Your task to perform on an android device: turn off smart reply in the gmail app Image 0: 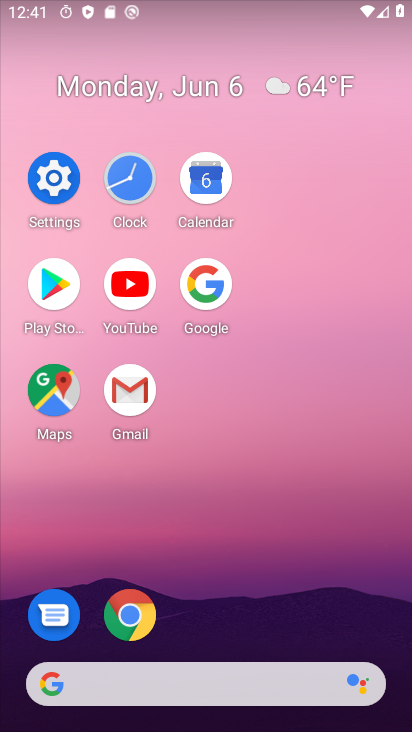
Step 0: click (158, 379)
Your task to perform on an android device: turn off smart reply in the gmail app Image 1: 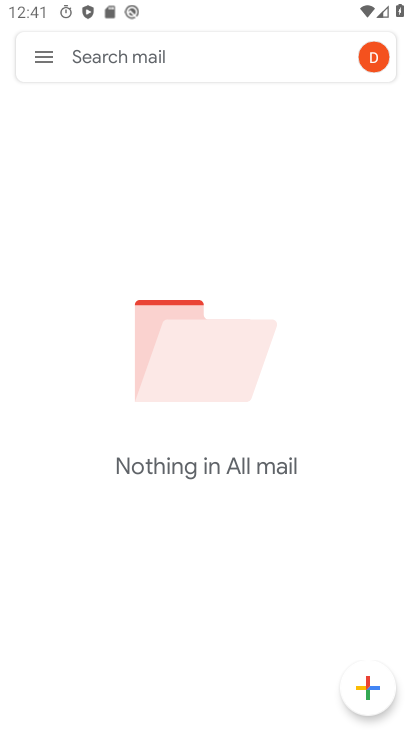
Step 1: click (38, 64)
Your task to perform on an android device: turn off smart reply in the gmail app Image 2: 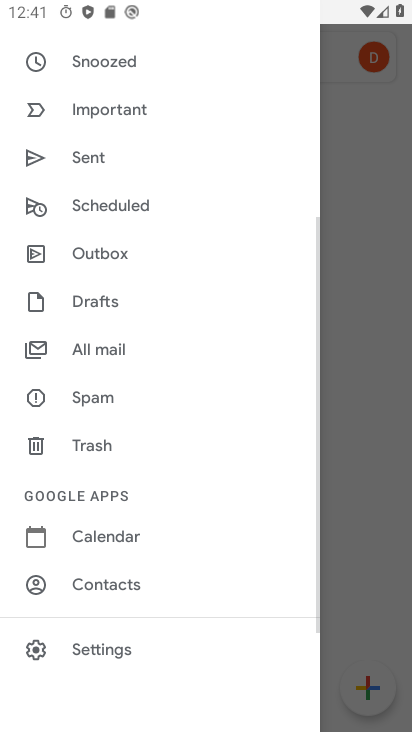
Step 2: click (132, 637)
Your task to perform on an android device: turn off smart reply in the gmail app Image 3: 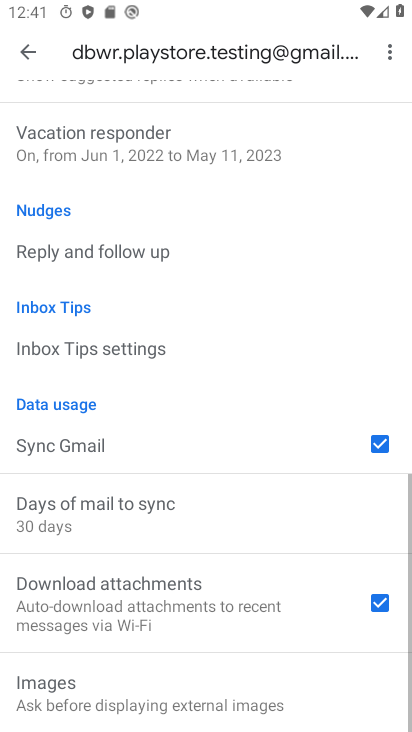
Step 3: drag from (140, 618) to (114, 240)
Your task to perform on an android device: turn off smart reply in the gmail app Image 4: 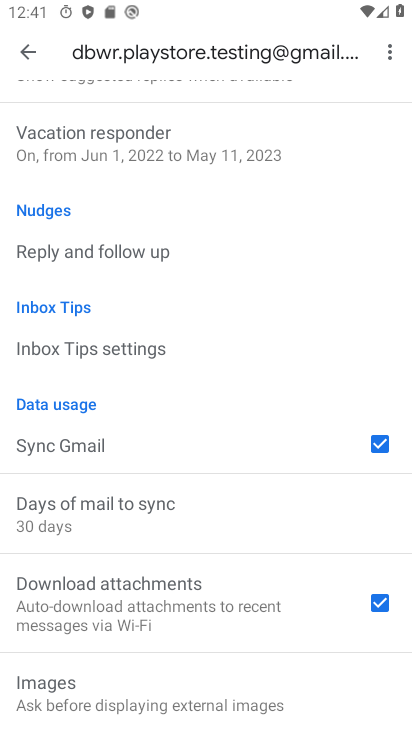
Step 4: drag from (181, 259) to (197, 526)
Your task to perform on an android device: turn off smart reply in the gmail app Image 5: 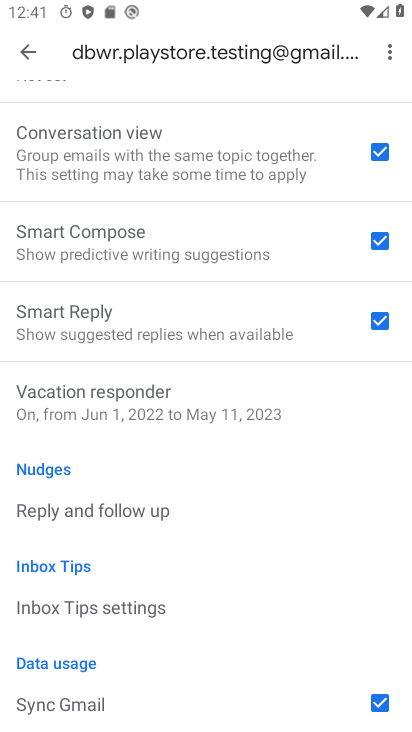
Step 5: click (383, 309)
Your task to perform on an android device: turn off smart reply in the gmail app Image 6: 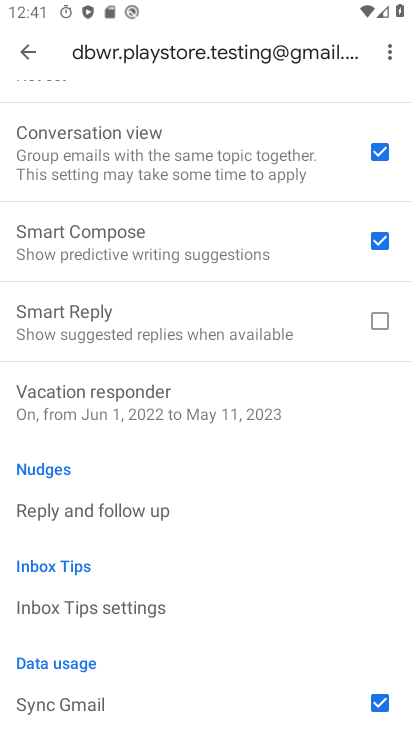
Step 6: task complete